Your task to perform on an android device: search for starred emails in the gmail app Image 0: 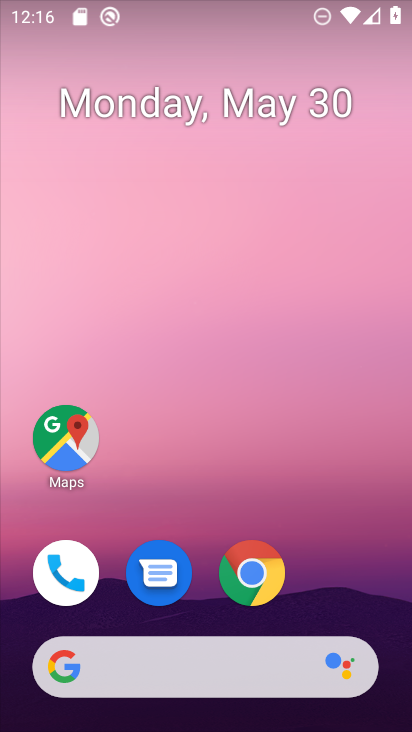
Step 0: drag from (348, 602) to (260, 113)
Your task to perform on an android device: search for starred emails in the gmail app Image 1: 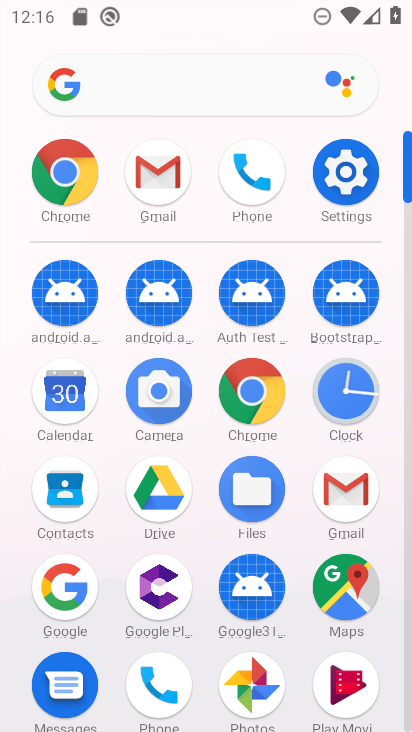
Step 1: click (162, 172)
Your task to perform on an android device: search for starred emails in the gmail app Image 2: 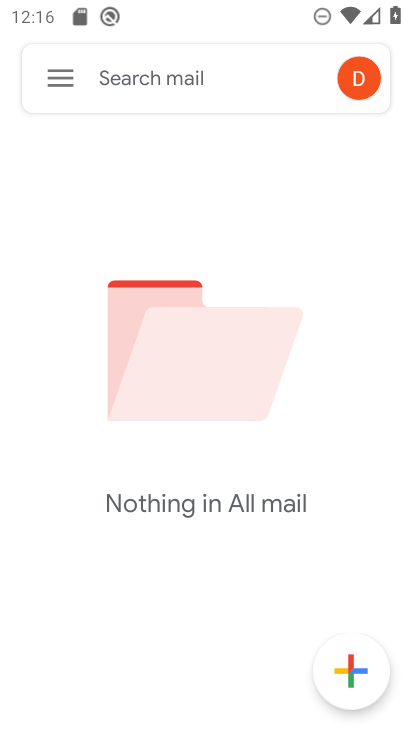
Step 2: click (65, 80)
Your task to perform on an android device: search for starred emails in the gmail app Image 3: 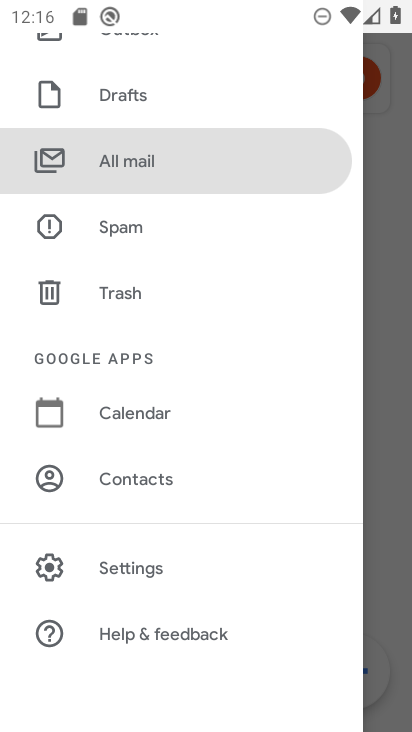
Step 3: drag from (220, 305) to (220, 654)
Your task to perform on an android device: search for starred emails in the gmail app Image 4: 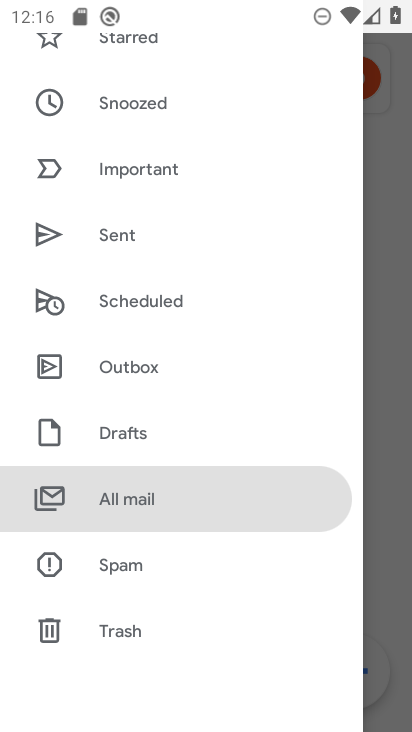
Step 4: drag from (242, 137) to (240, 516)
Your task to perform on an android device: search for starred emails in the gmail app Image 5: 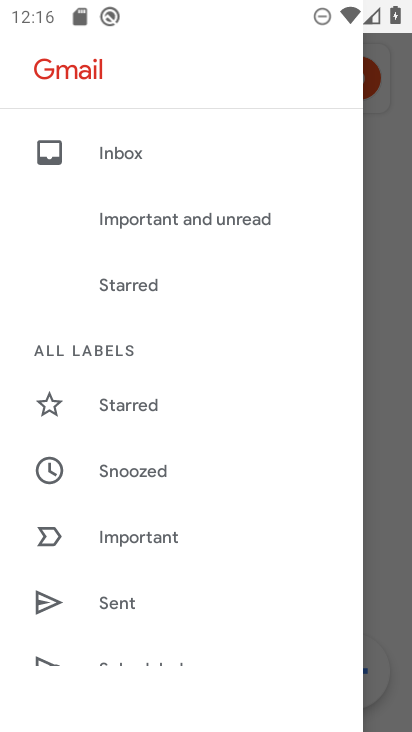
Step 5: click (132, 408)
Your task to perform on an android device: search for starred emails in the gmail app Image 6: 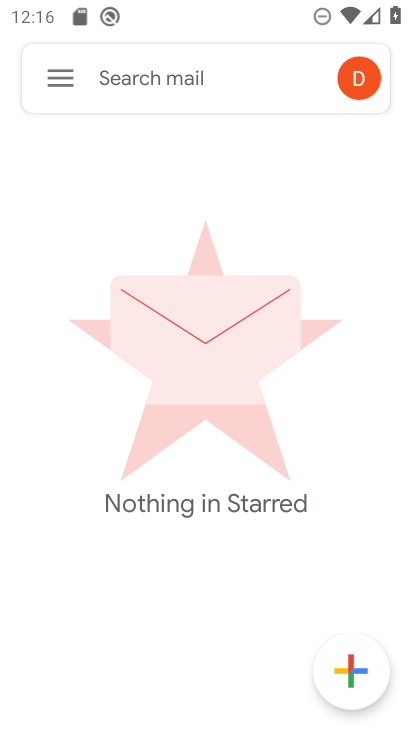
Step 6: task complete